Your task to perform on an android device: change notification settings in the gmail app Image 0: 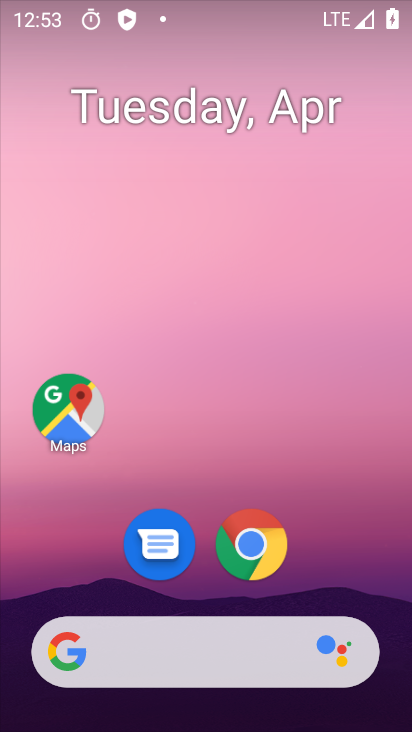
Step 0: drag from (376, 592) to (403, 435)
Your task to perform on an android device: change notification settings in the gmail app Image 1: 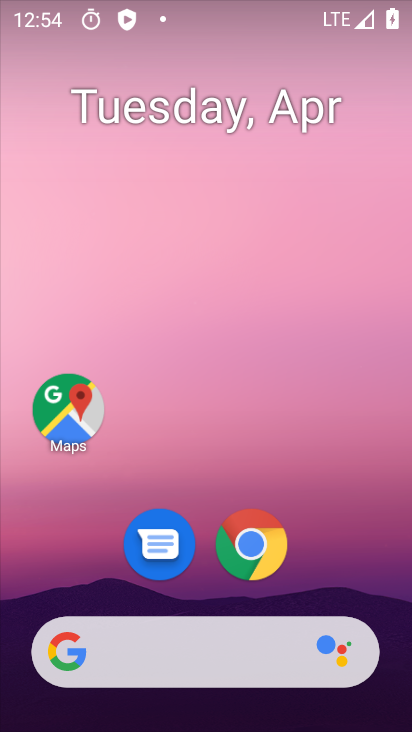
Step 1: drag from (384, 451) to (388, 53)
Your task to perform on an android device: change notification settings in the gmail app Image 2: 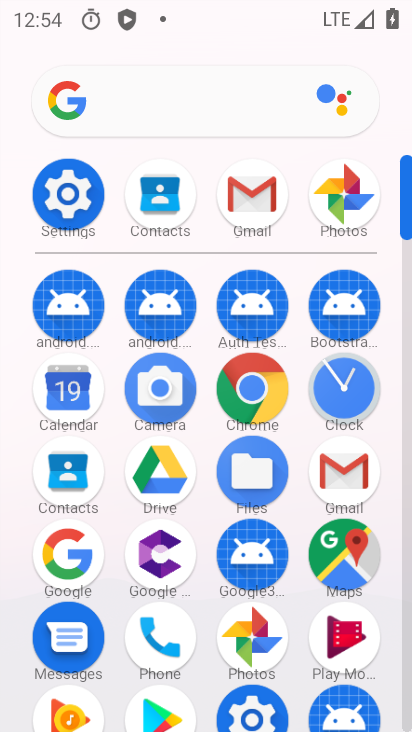
Step 2: click (248, 197)
Your task to perform on an android device: change notification settings in the gmail app Image 3: 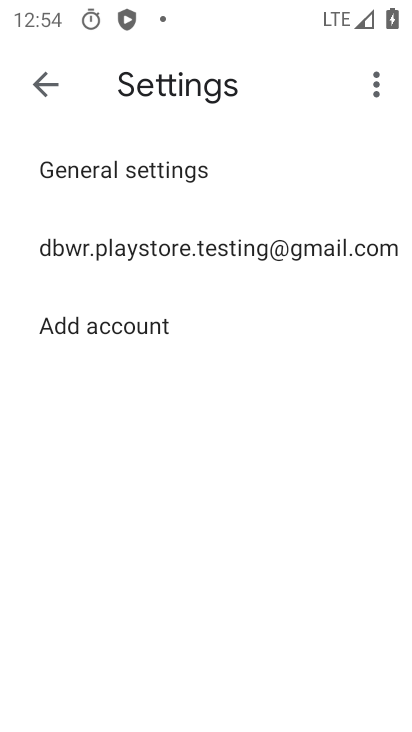
Step 3: click (124, 178)
Your task to perform on an android device: change notification settings in the gmail app Image 4: 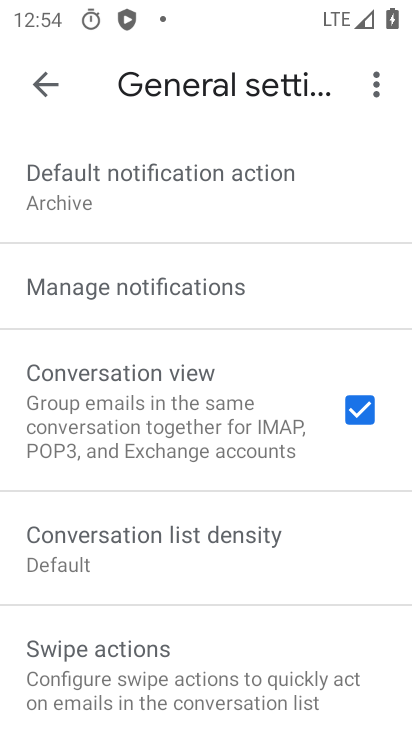
Step 4: click (147, 298)
Your task to perform on an android device: change notification settings in the gmail app Image 5: 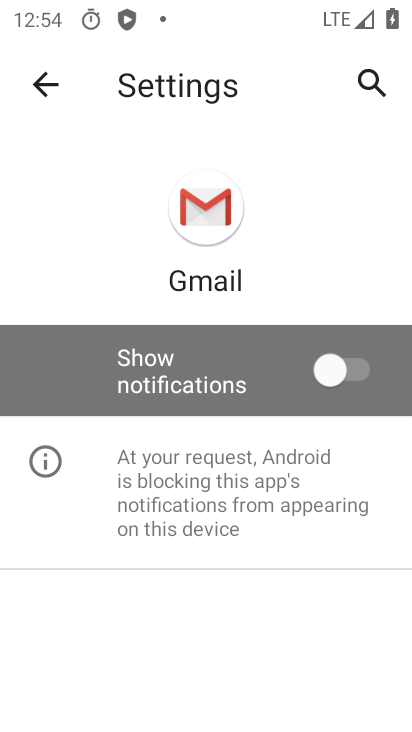
Step 5: click (324, 369)
Your task to perform on an android device: change notification settings in the gmail app Image 6: 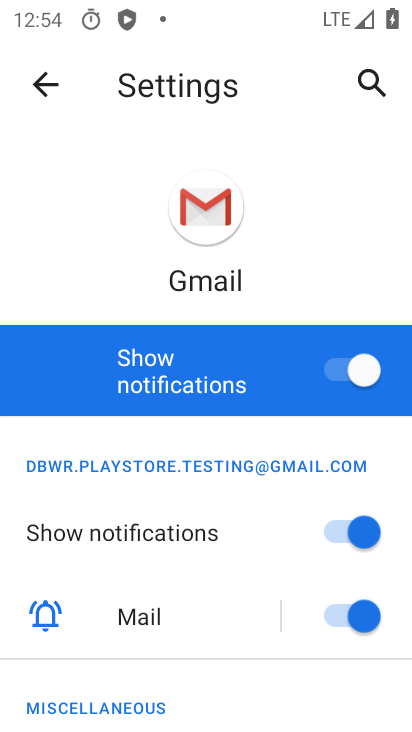
Step 6: task complete